Your task to perform on an android device: open a bookmark in the chrome app Image 0: 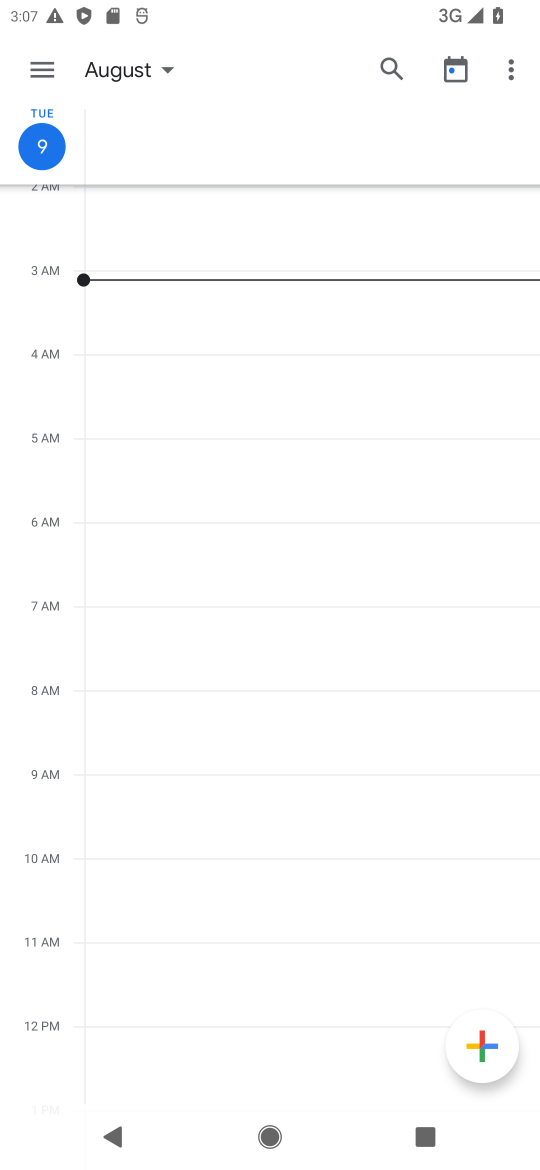
Step 0: press home button
Your task to perform on an android device: open a bookmark in the chrome app Image 1: 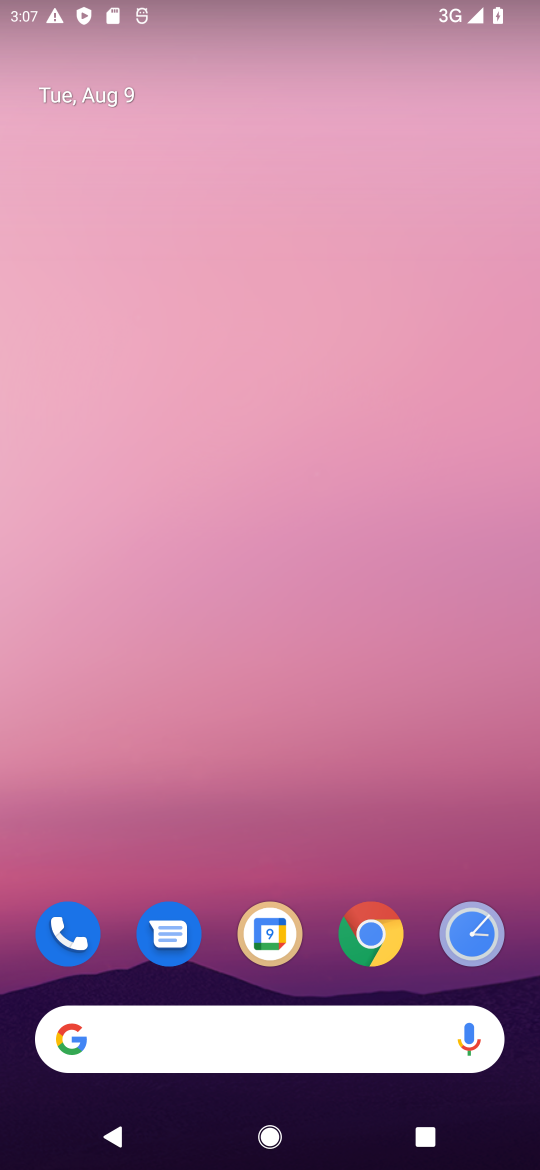
Step 1: click (347, 948)
Your task to perform on an android device: open a bookmark in the chrome app Image 2: 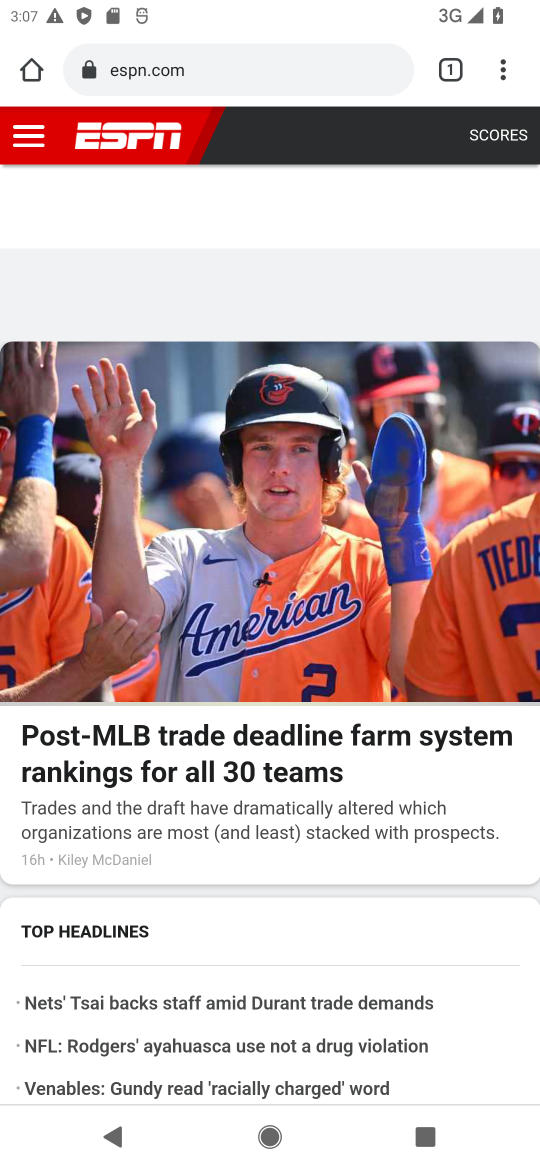
Step 2: click (509, 61)
Your task to perform on an android device: open a bookmark in the chrome app Image 3: 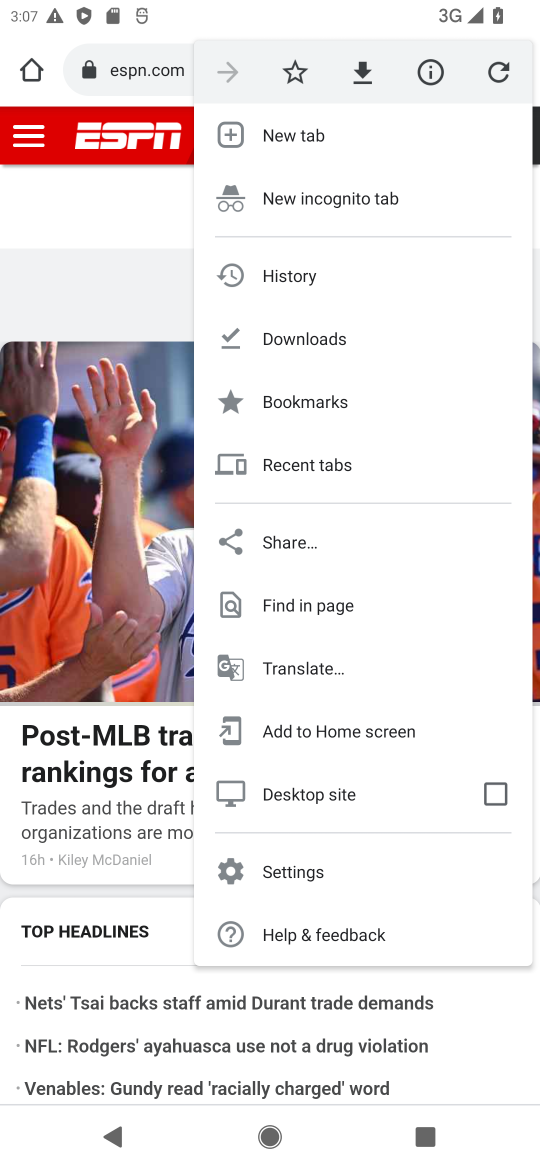
Step 3: click (258, 861)
Your task to perform on an android device: open a bookmark in the chrome app Image 4: 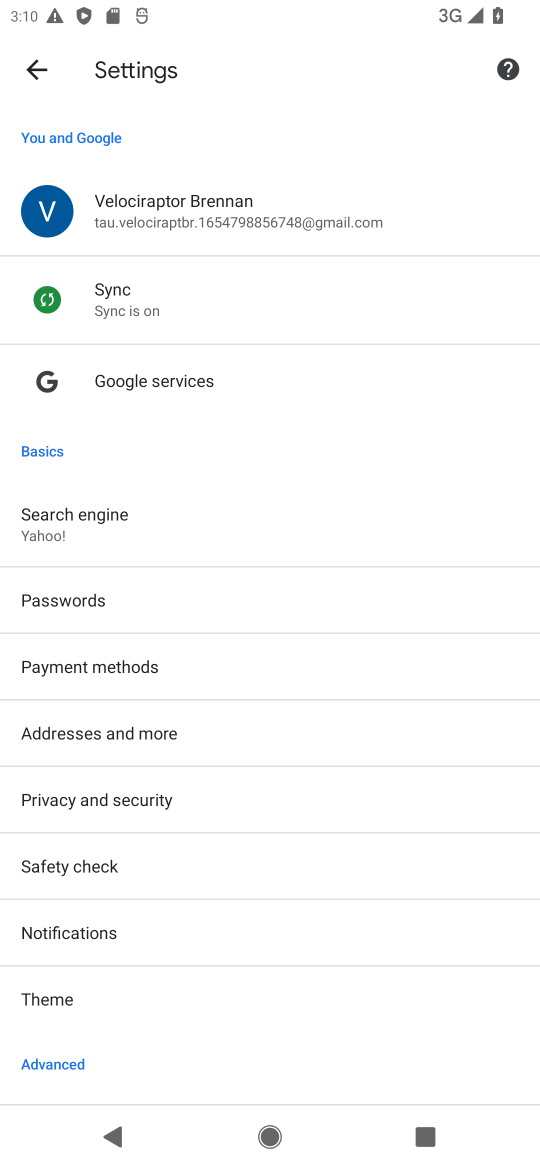
Step 4: task complete